Your task to perform on an android device: Go to Yahoo.com Image 0: 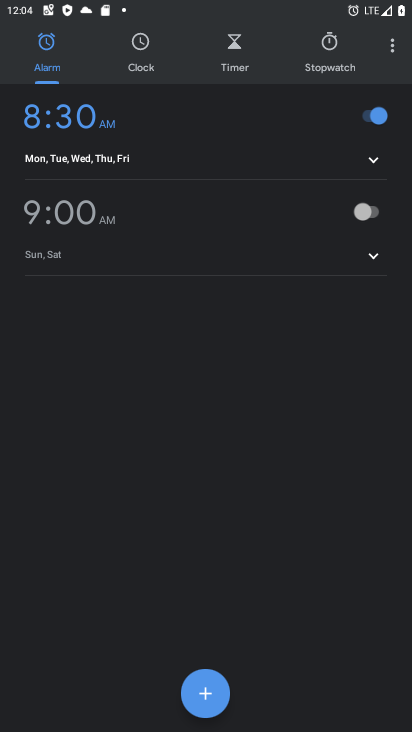
Step 0: press home button
Your task to perform on an android device: Go to Yahoo.com Image 1: 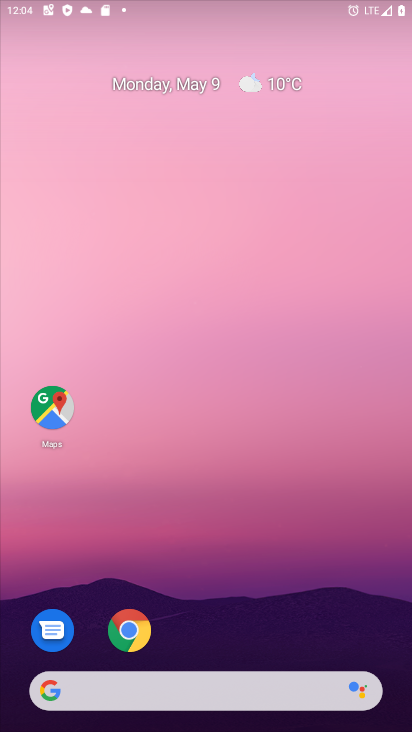
Step 1: drag from (313, 614) to (271, 27)
Your task to perform on an android device: Go to Yahoo.com Image 2: 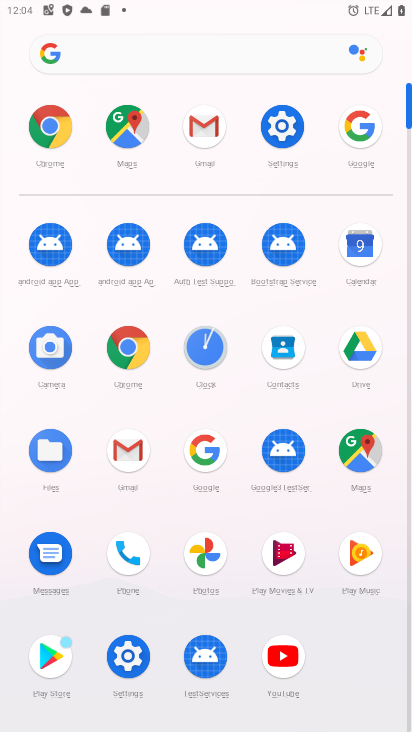
Step 2: click (126, 346)
Your task to perform on an android device: Go to Yahoo.com Image 3: 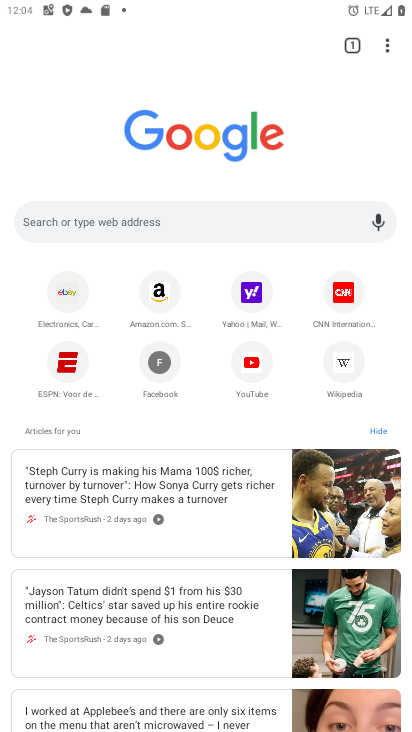
Step 3: click (256, 291)
Your task to perform on an android device: Go to Yahoo.com Image 4: 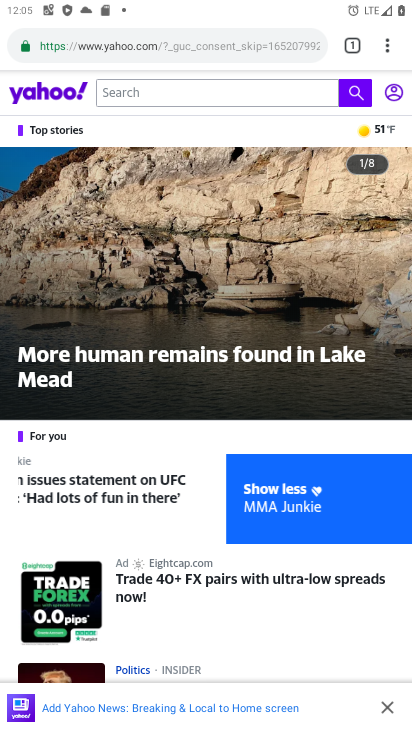
Step 4: task complete